Your task to perform on an android device: open sync settings in chrome Image 0: 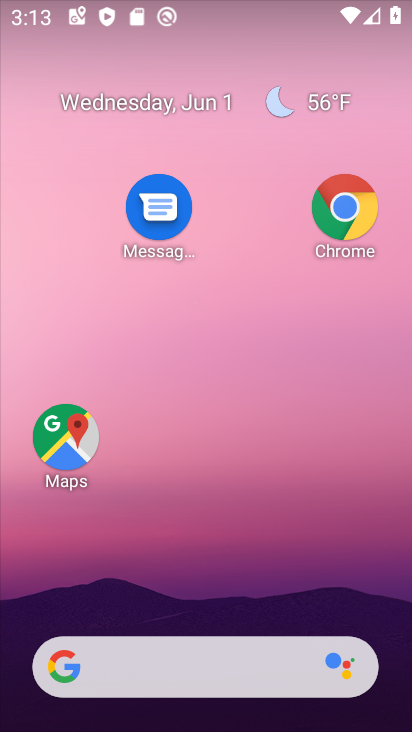
Step 0: drag from (217, 602) to (238, 105)
Your task to perform on an android device: open sync settings in chrome Image 1: 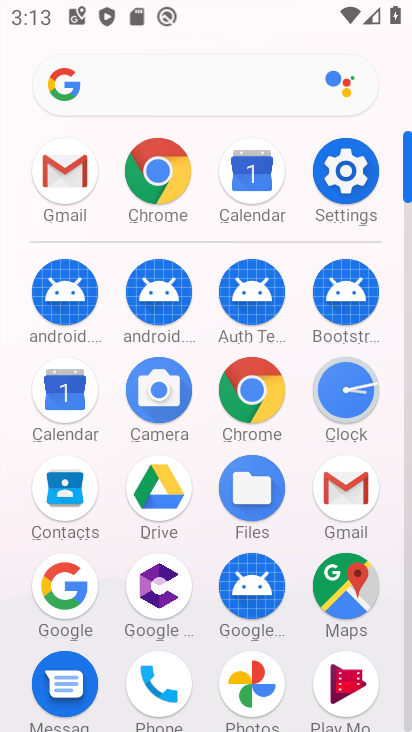
Step 1: click (260, 390)
Your task to perform on an android device: open sync settings in chrome Image 2: 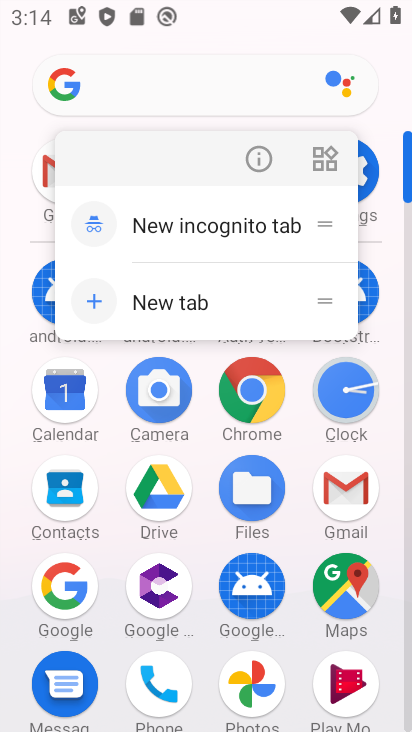
Step 2: click (268, 149)
Your task to perform on an android device: open sync settings in chrome Image 3: 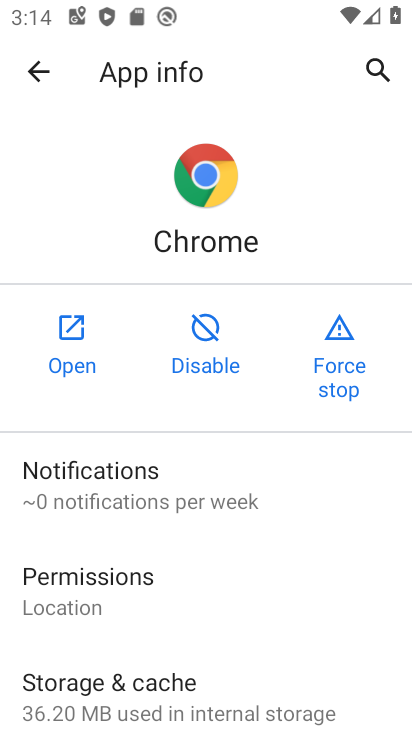
Step 3: click (67, 327)
Your task to perform on an android device: open sync settings in chrome Image 4: 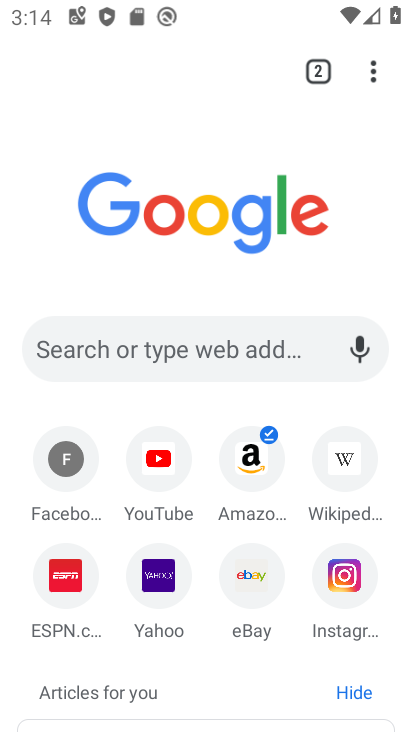
Step 4: drag from (375, 79) to (192, 610)
Your task to perform on an android device: open sync settings in chrome Image 5: 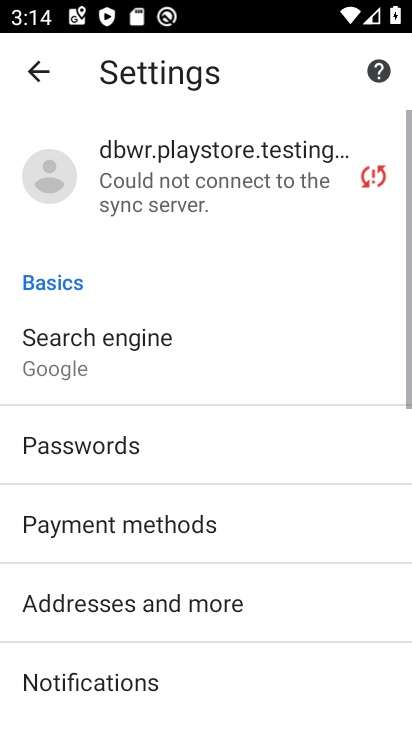
Step 5: drag from (198, 585) to (249, 93)
Your task to perform on an android device: open sync settings in chrome Image 6: 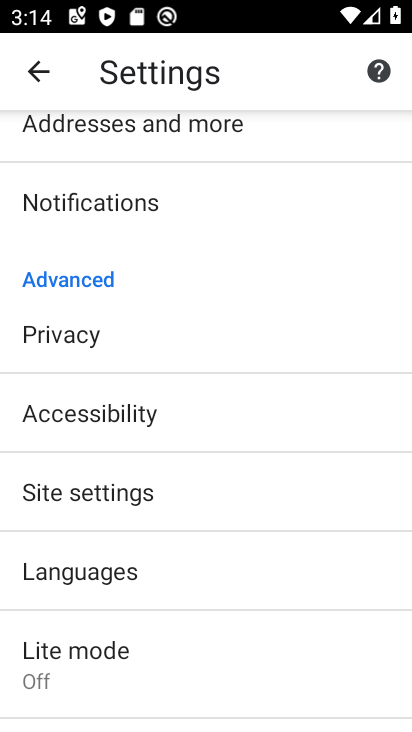
Step 6: click (171, 489)
Your task to perform on an android device: open sync settings in chrome Image 7: 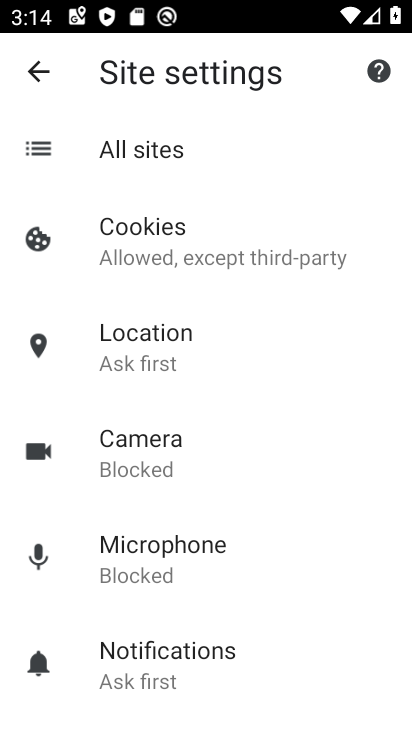
Step 7: drag from (196, 631) to (286, 124)
Your task to perform on an android device: open sync settings in chrome Image 8: 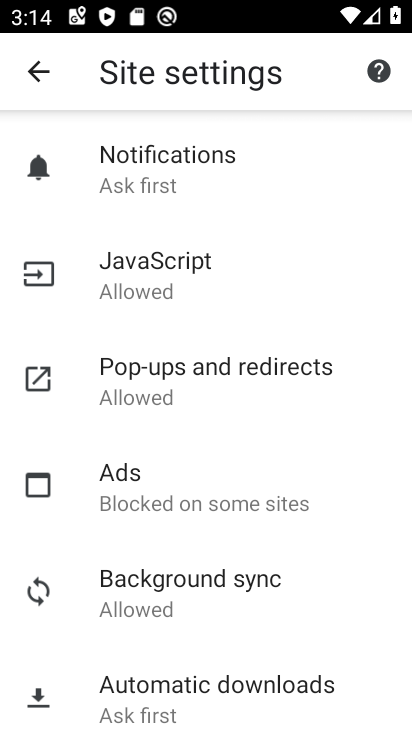
Step 8: click (202, 581)
Your task to perform on an android device: open sync settings in chrome Image 9: 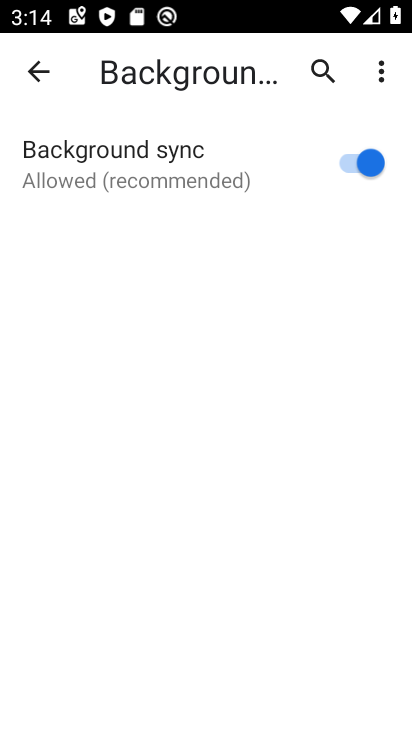
Step 9: drag from (290, 348) to (332, 173)
Your task to perform on an android device: open sync settings in chrome Image 10: 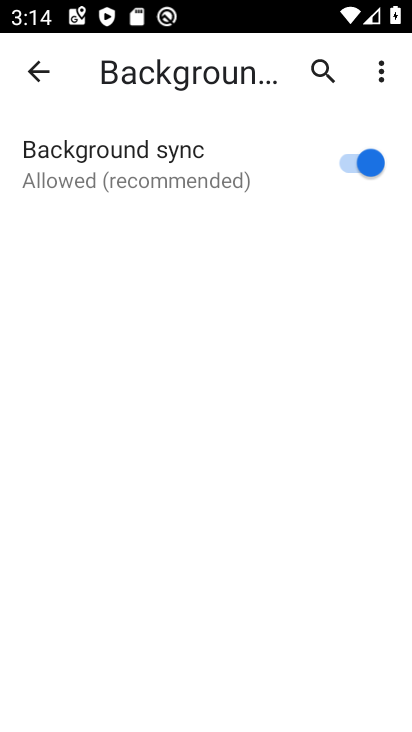
Step 10: click (338, 164)
Your task to perform on an android device: open sync settings in chrome Image 11: 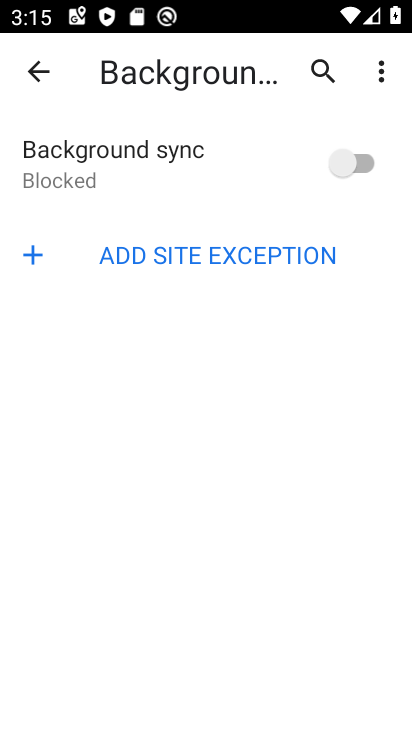
Step 11: task complete